Your task to perform on an android device: Is it going to rain today? Image 0: 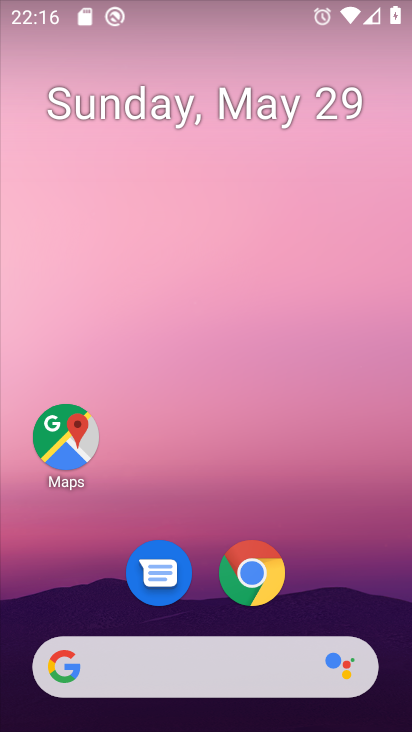
Step 0: click (238, 661)
Your task to perform on an android device: Is it going to rain today? Image 1: 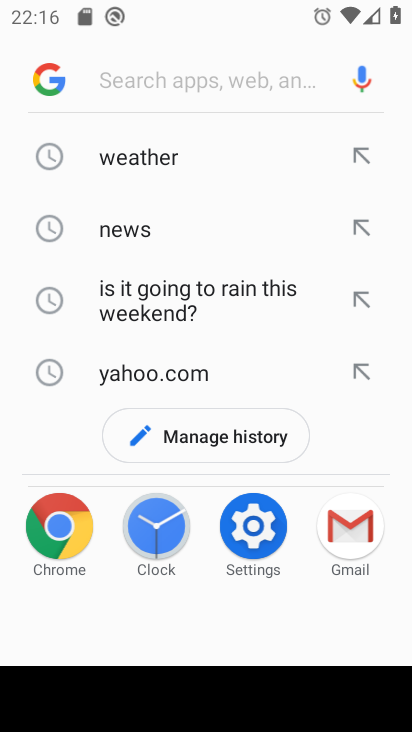
Step 1: click (103, 156)
Your task to perform on an android device: Is it going to rain today? Image 2: 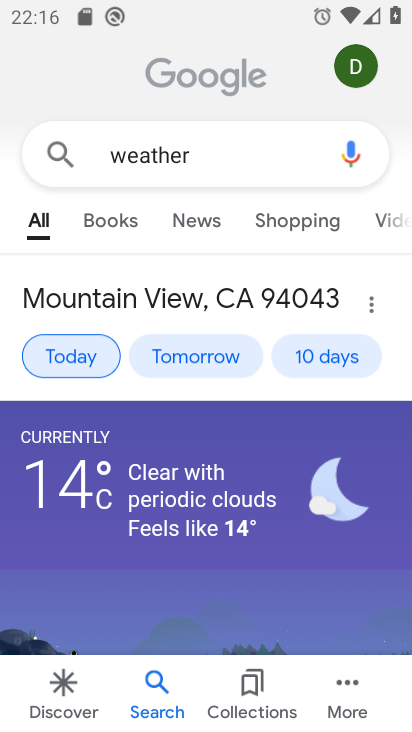
Step 2: click (81, 344)
Your task to perform on an android device: Is it going to rain today? Image 3: 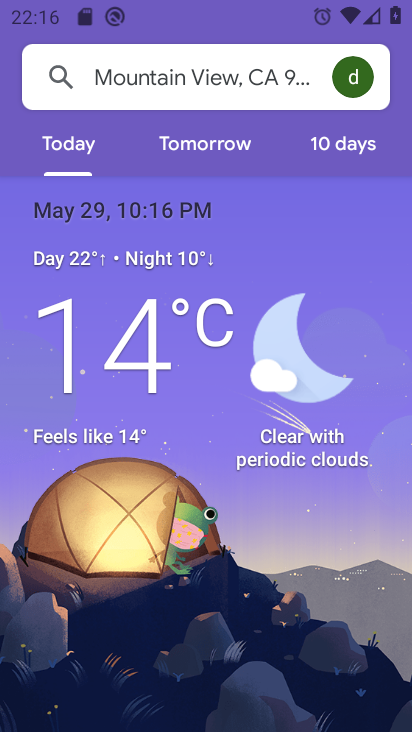
Step 3: task complete